Your task to perform on an android device: Go to sound settings Image 0: 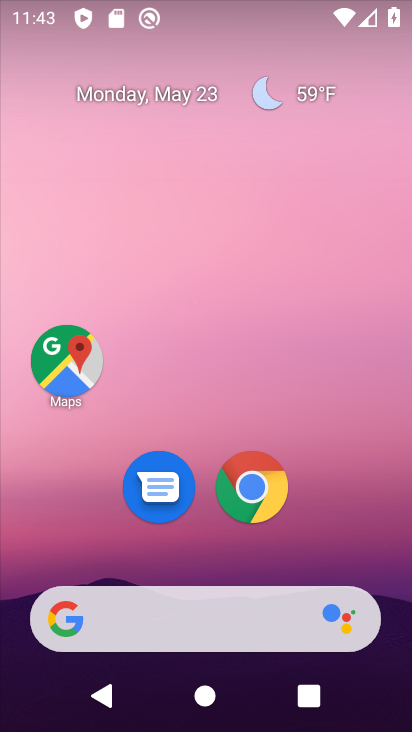
Step 0: drag from (203, 572) to (246, 127)
Your task to perform on an android device: Go to sound settings Image 1: 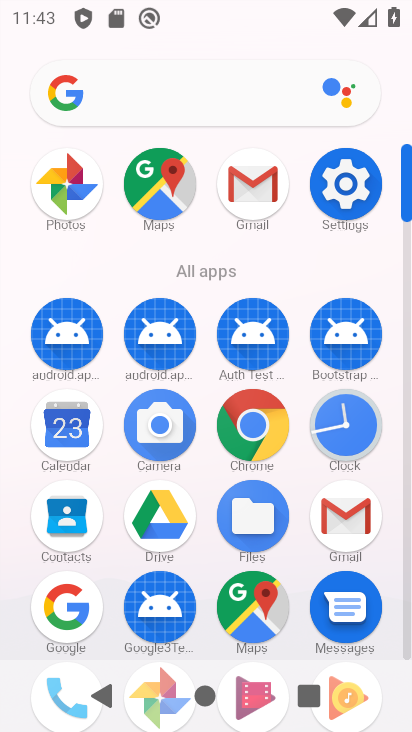
Step 1: click (328, 182)
Your task to perform on an android device: Go to sound settings Image 2: 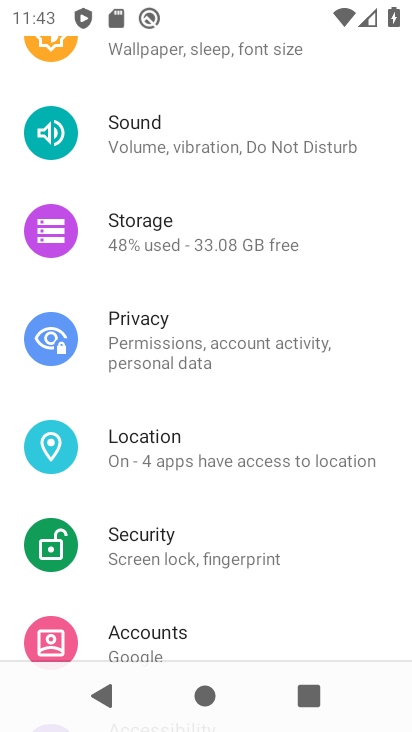
Step 2: click (137, 123)
Your task to perform on an android device: Go to sound settings Image 3: 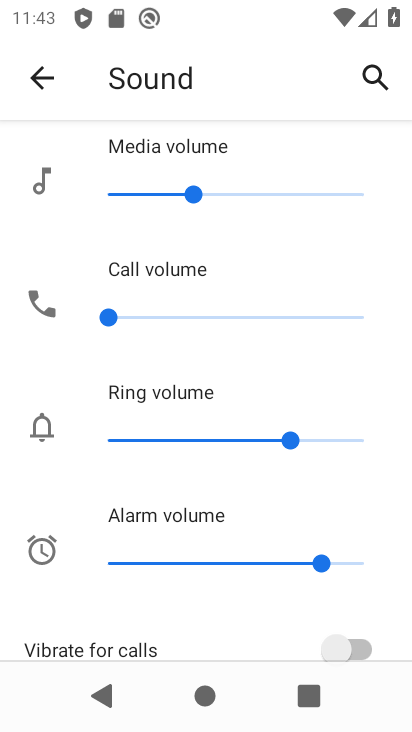
Step 3: task complete